Your task to perform on an android device: Open Android settings Image 0: 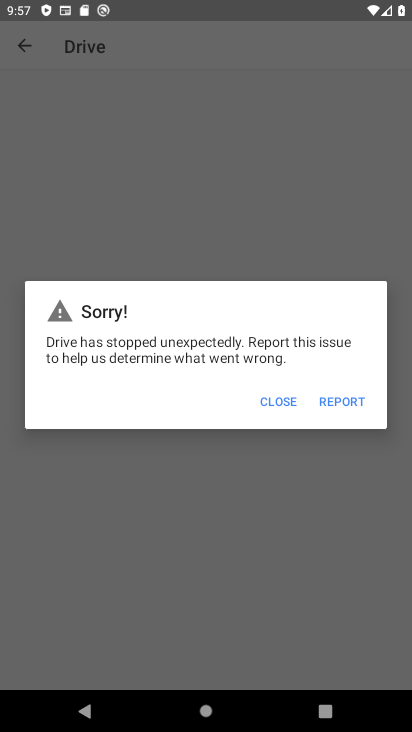
Step 0: press home button
Your task to perform on an android device: Open Android settings Image 1: 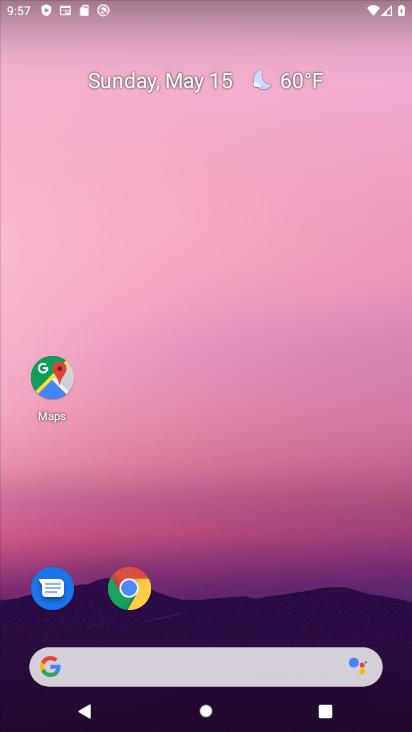
Step 1: drag from (236, 618) to (200, 136)
Your task to perform on an android device: Open Android settings Image 2: 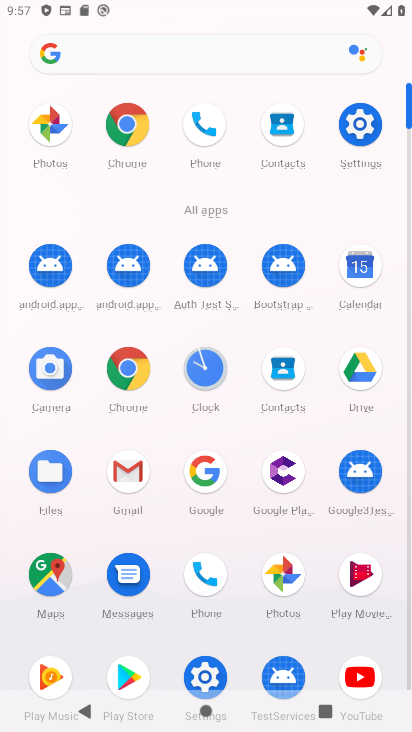
Step 2: click (362, 139)
Your task to perform on an android device: Open Android settings Image 3: 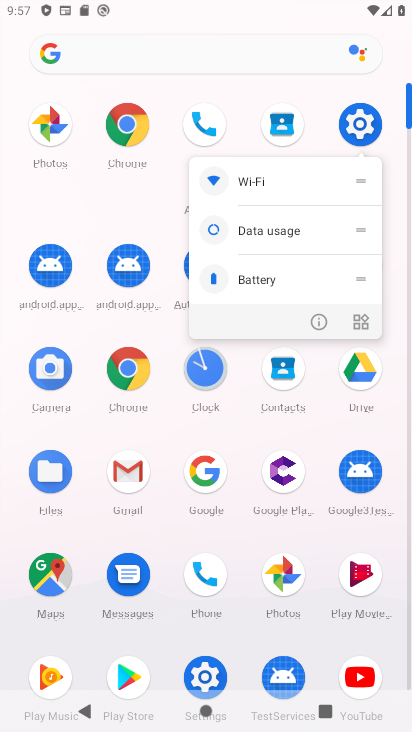
Step 3: click (359, 131)
Your task to perform on an android device: Open Android settings Image 4: 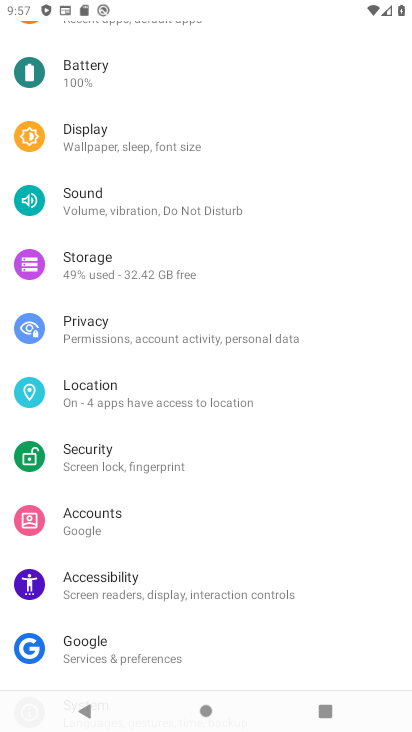
Step 4: task complete